Your task to perform on an android device: Open the map Image 0: 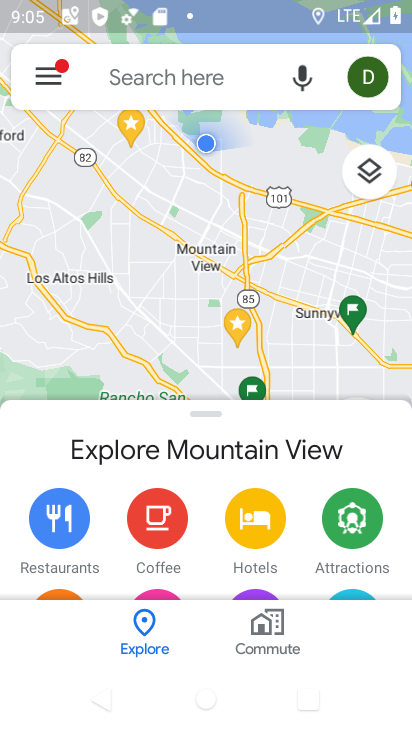
Step 0: press home button
Your task to perform on an android device: Open the map Image 1: 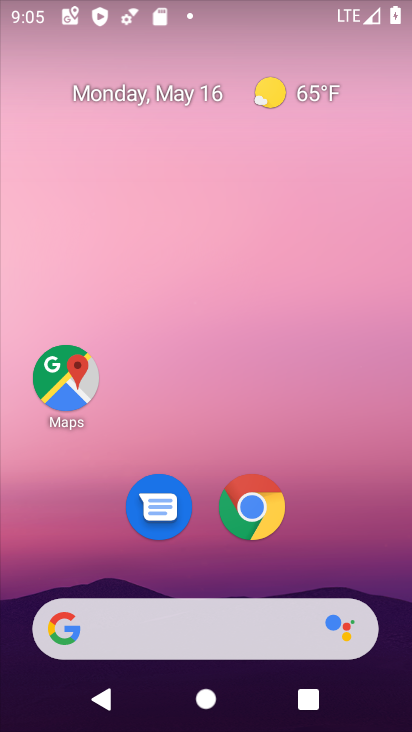
Step 1: click (53, 374)
Your task to perform on an android device: Open the map Image 2: 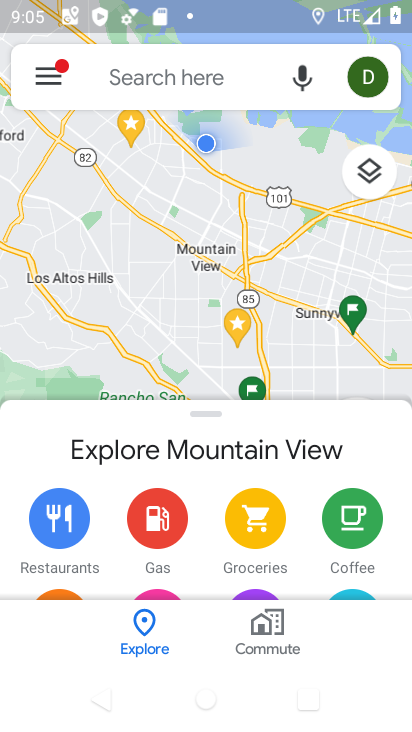
Step 2: task complete